Your task to perform on an android device: turn off smart reply in the gmail app Image 0: 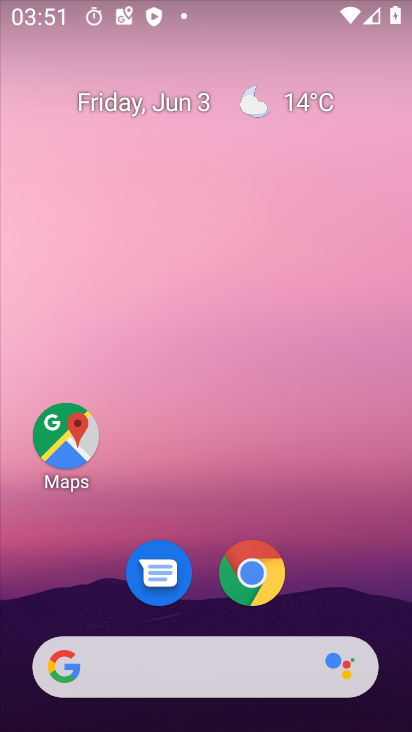
Step 0: drag from (334, 598) to (356, 61)
Your task to perform on an android device: turn off smart reply in the gmail app Image 1: 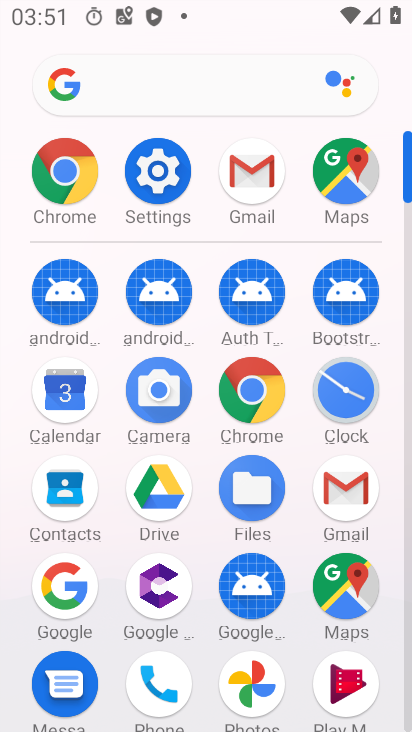
Step 1: click (343, 502)
Your task to perform on an android device: turn off smart reply in the gmail app Image 2: 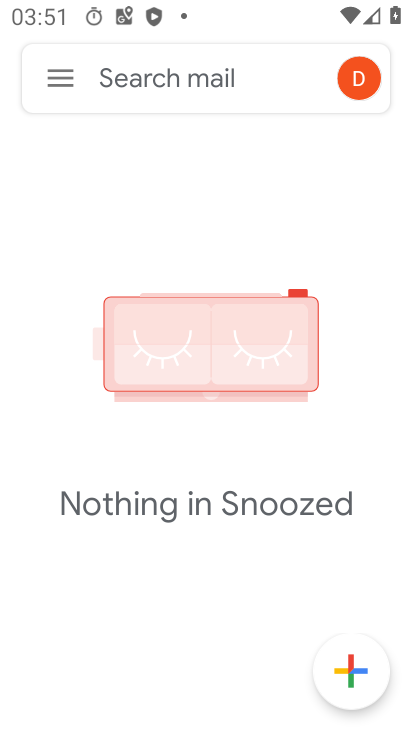
Step 2: click (51, 76)
Your task to perform on an android device: turn off smart reply in the gmail app Image 3: 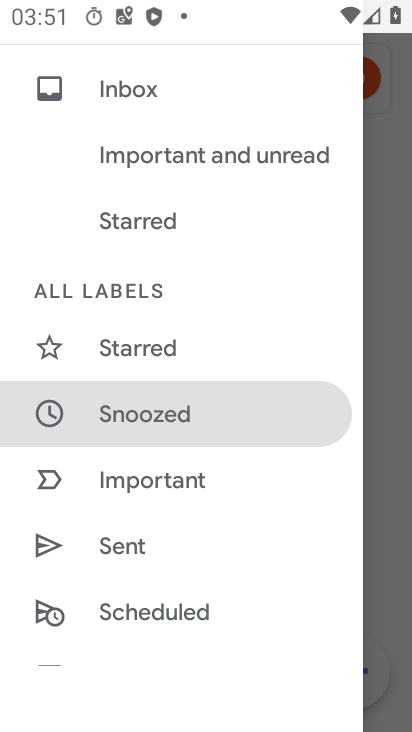
Step 3: drag from (227, 617) to (260, 80)
Your task to perform on an android device: turn off smart reply in the gmail app Image 4: 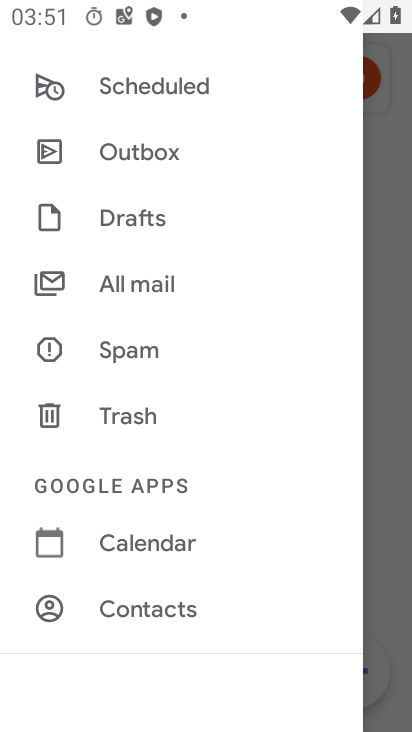
Step 4: drag from (191, 563) to (265, 151)
Your task to perform on an android device: turn off smart reply in the gmail app Image 5: 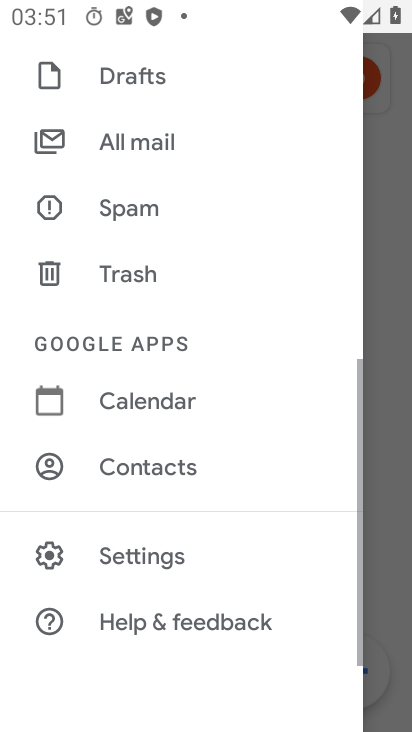
Step 5: click (189, 562)
Your task to perform on an android device: turn off smart reply in the gmail app Image 6: 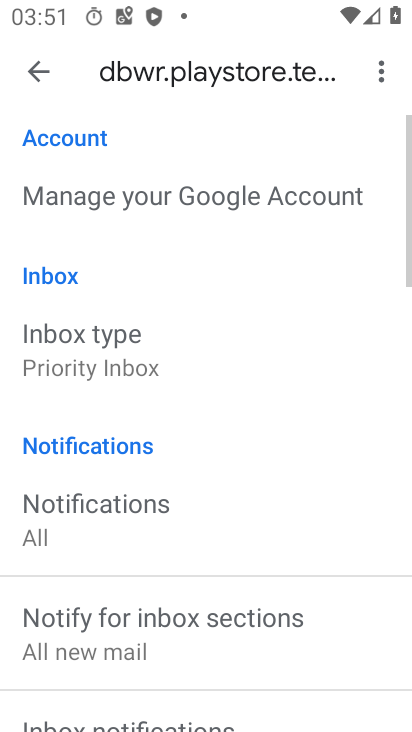
Step 6: drag from (124, 653) to (155, 334)
Your task to perform on an android device: turn off smart reply in the gmail app Image 7: 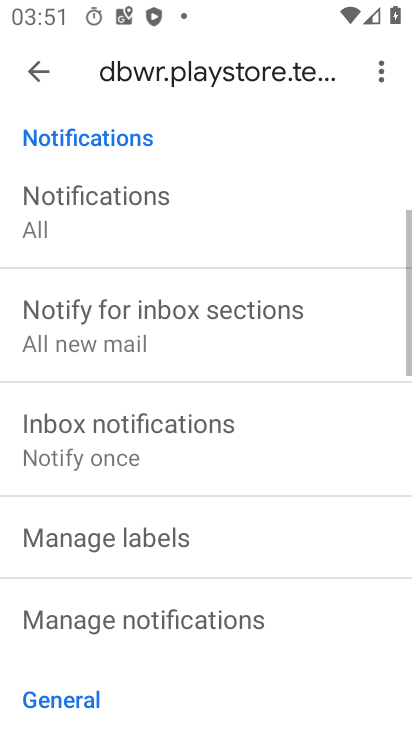
Step 7: drag from (226, 653) to (271, 187)
Your task to perform on an android device: turn off smart reply in the gmail app Image 8: 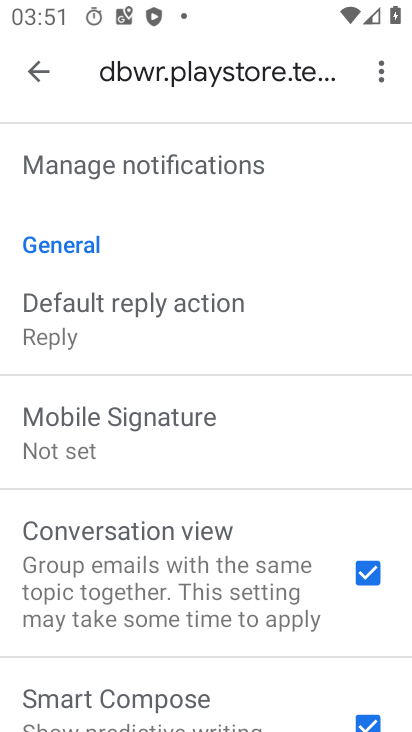
Step 8: drag from (167, 612) to (254, 161)
Your task to perform on an android device: turn off smart reply in the gmail app Image 9: 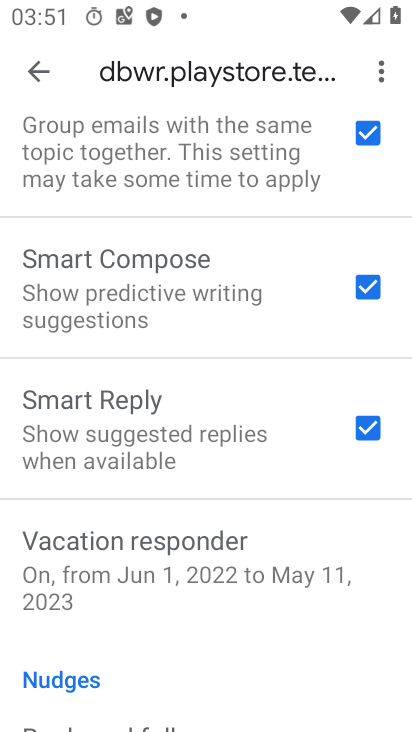
Step 9: click (361, 435)
Your task to perform on an android device: turn off smart reply in the gmail app Image 10: 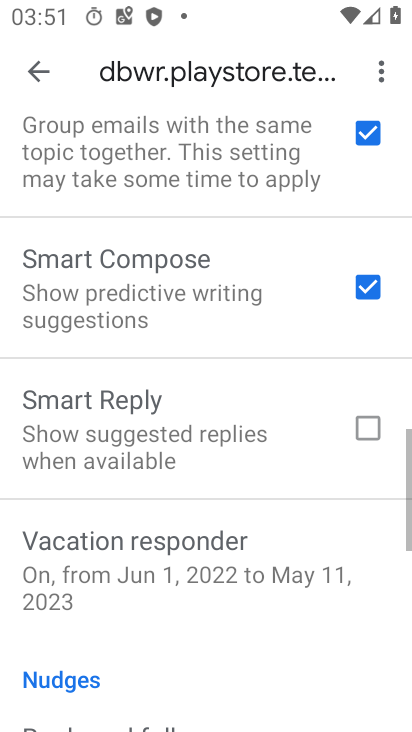
Step 10: task complete